Your task to perform on an android device: change notifications settings Image 0: 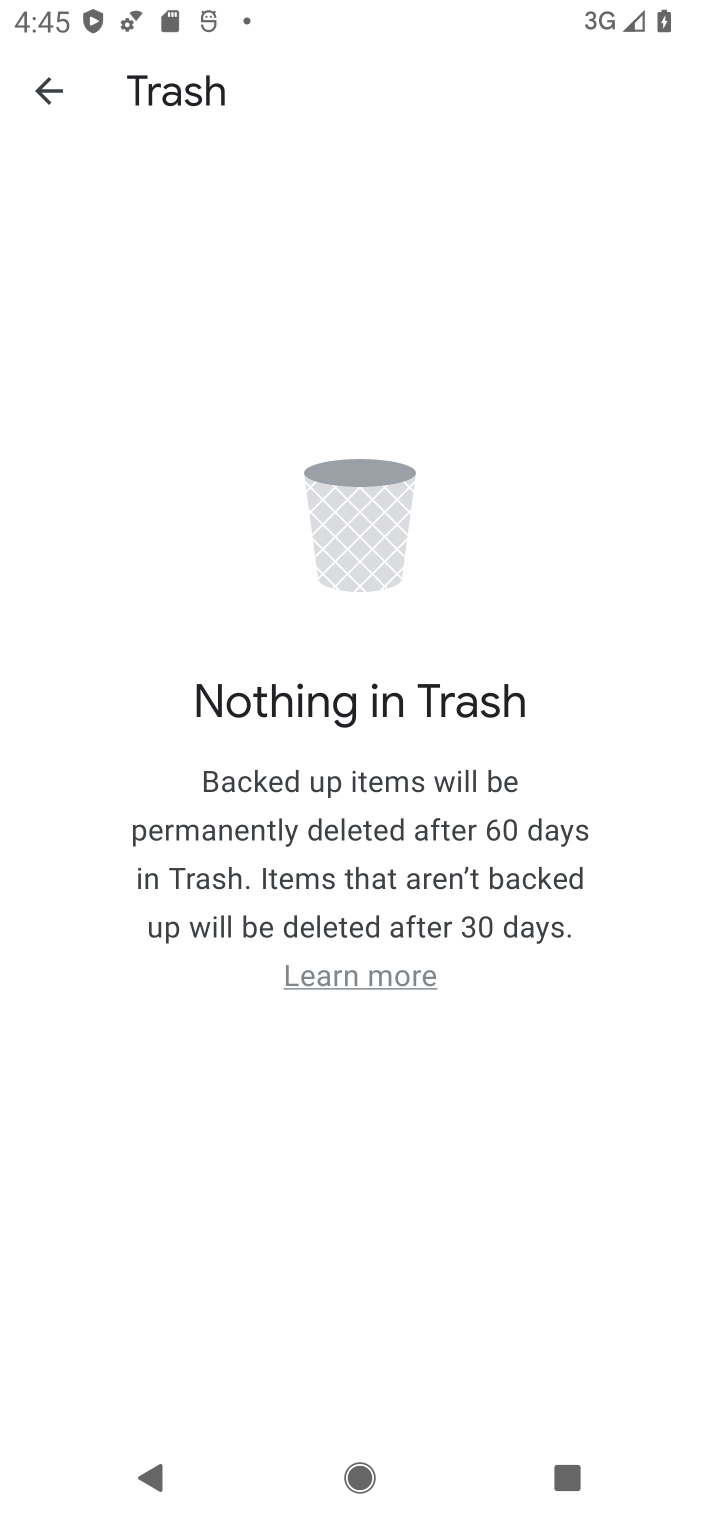
Step 0: press home button
Your task to perform on an android device: change notifications settings Image 1: 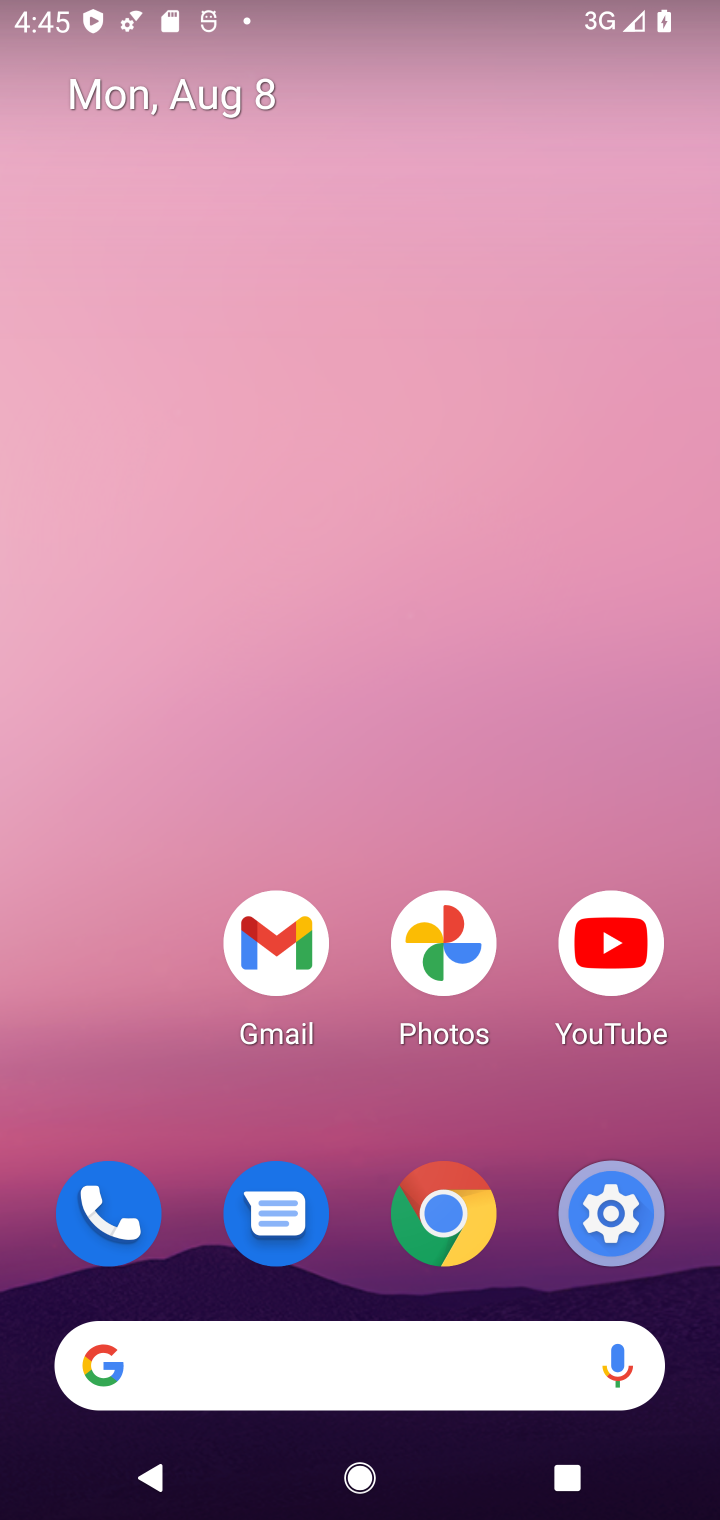
Step 1: click (622, 1202)
Your task to perform on an android device: change notifications settings Image 2: 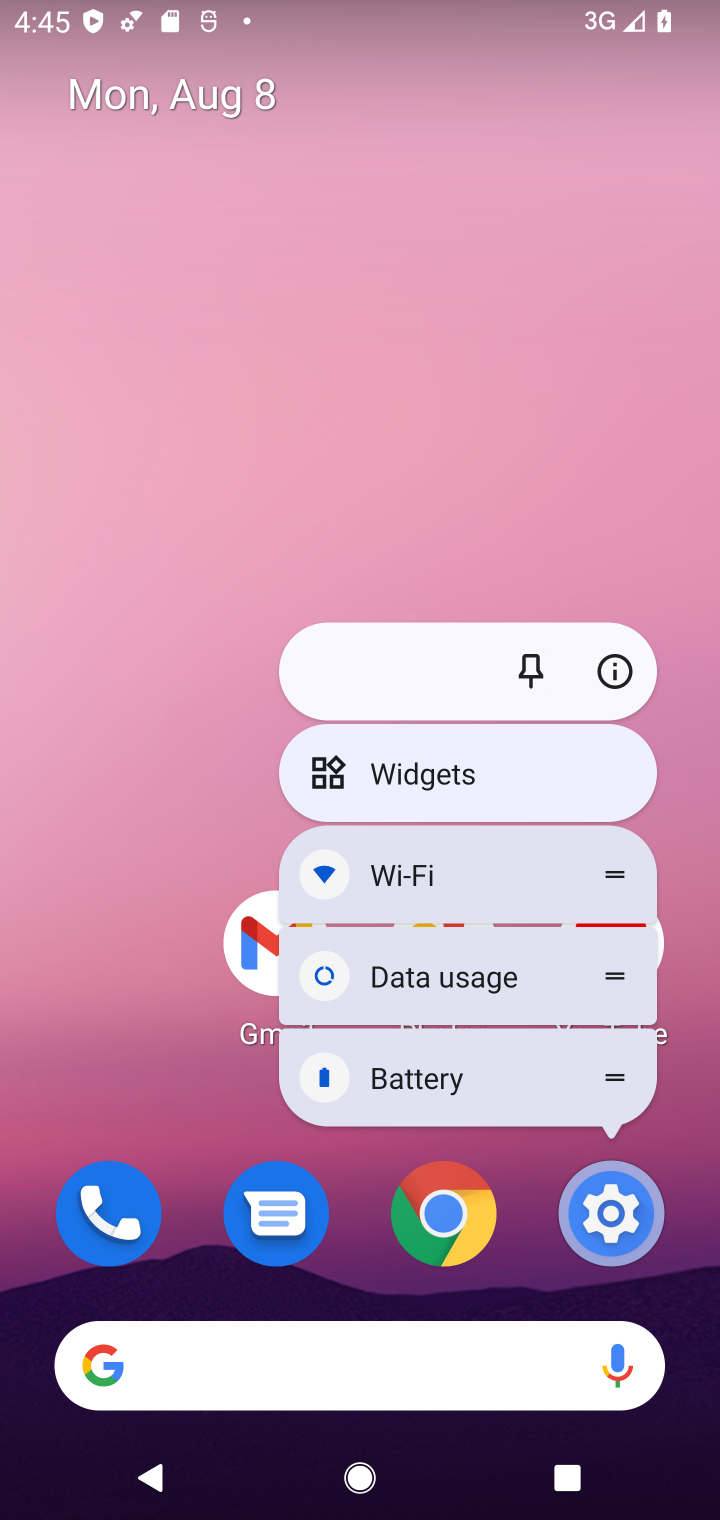
Step 2: click (622, 1202)
Your task to perform on an android device: change notifications settings Image 3: 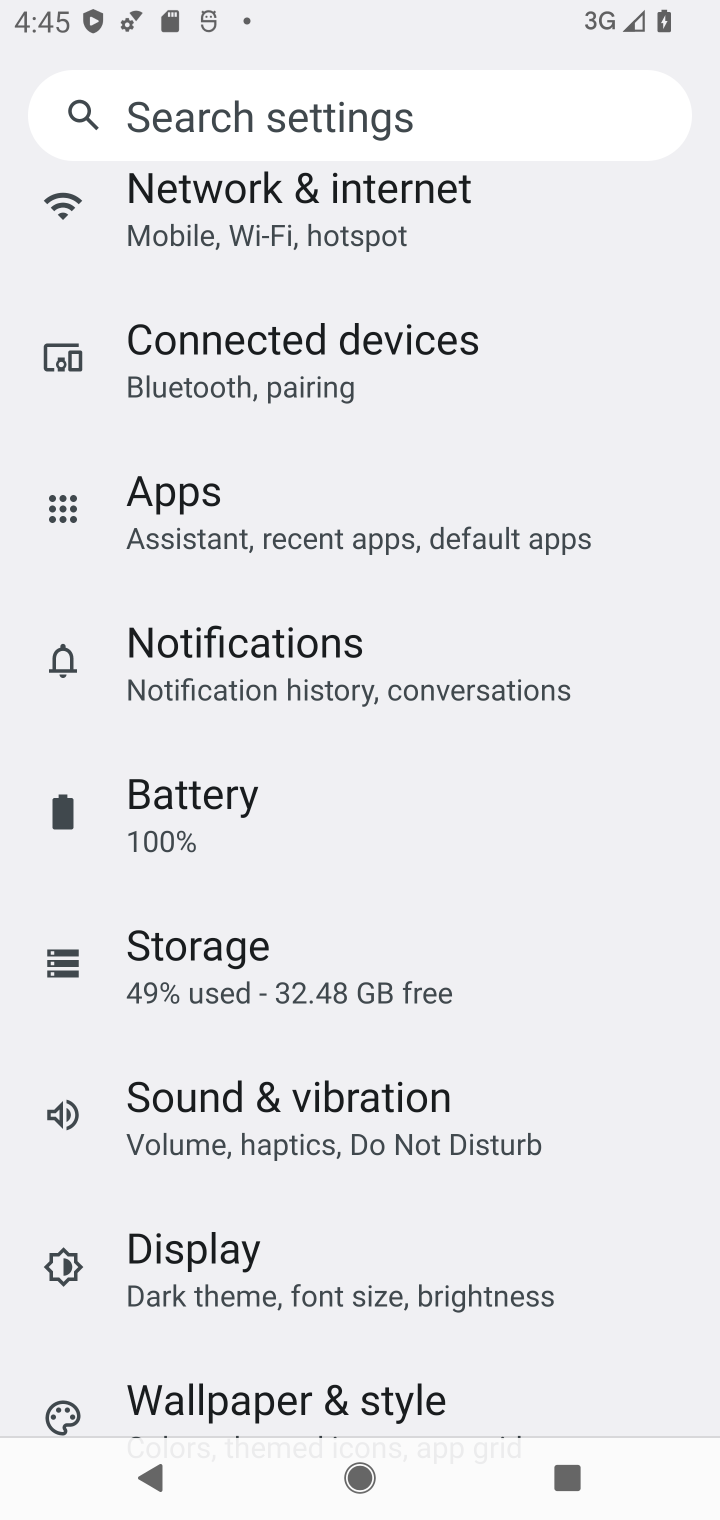
Step 3: click (300, 655)
Your task to perform on an android device: change notifications settings Image 4: 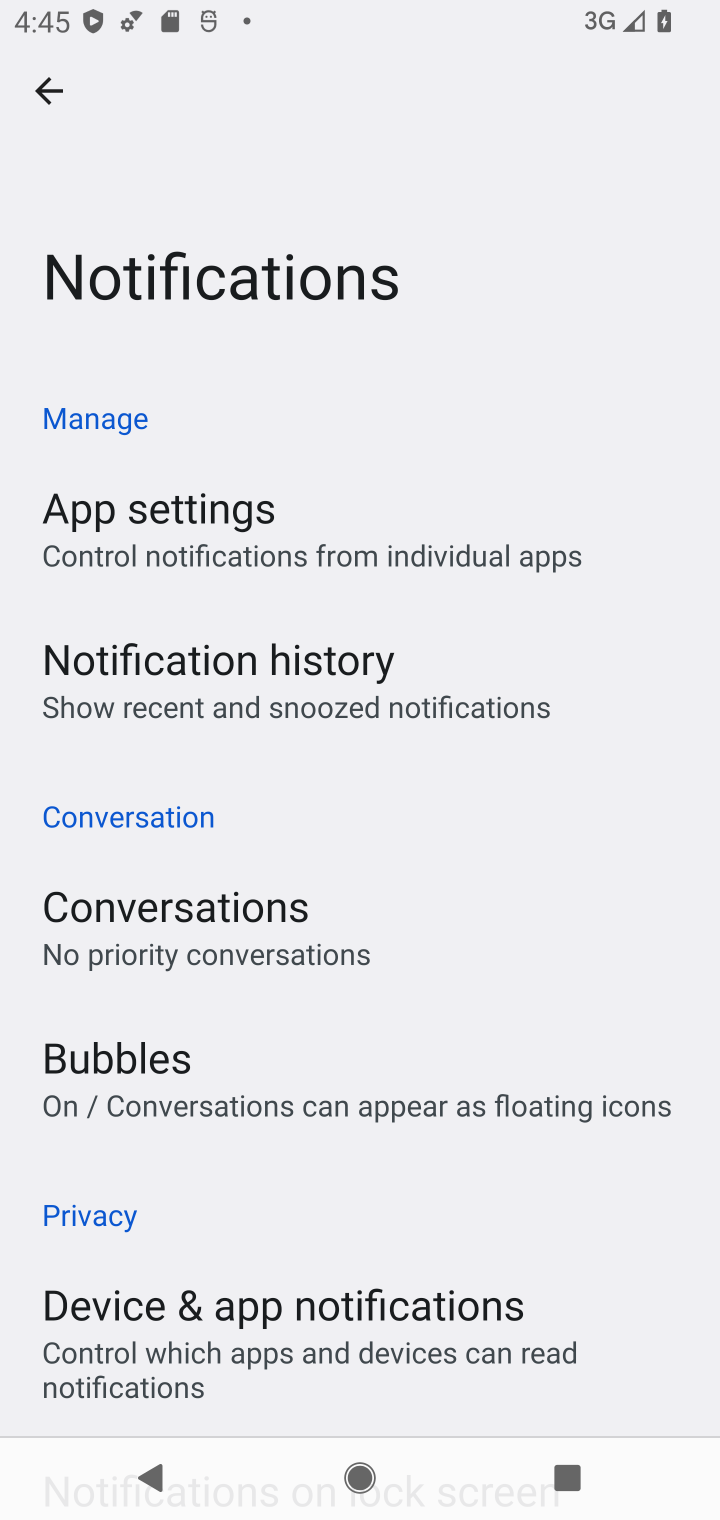
Step 4: click (277, 507)
Your task to perform on an android device: change notifications settings Image 5: 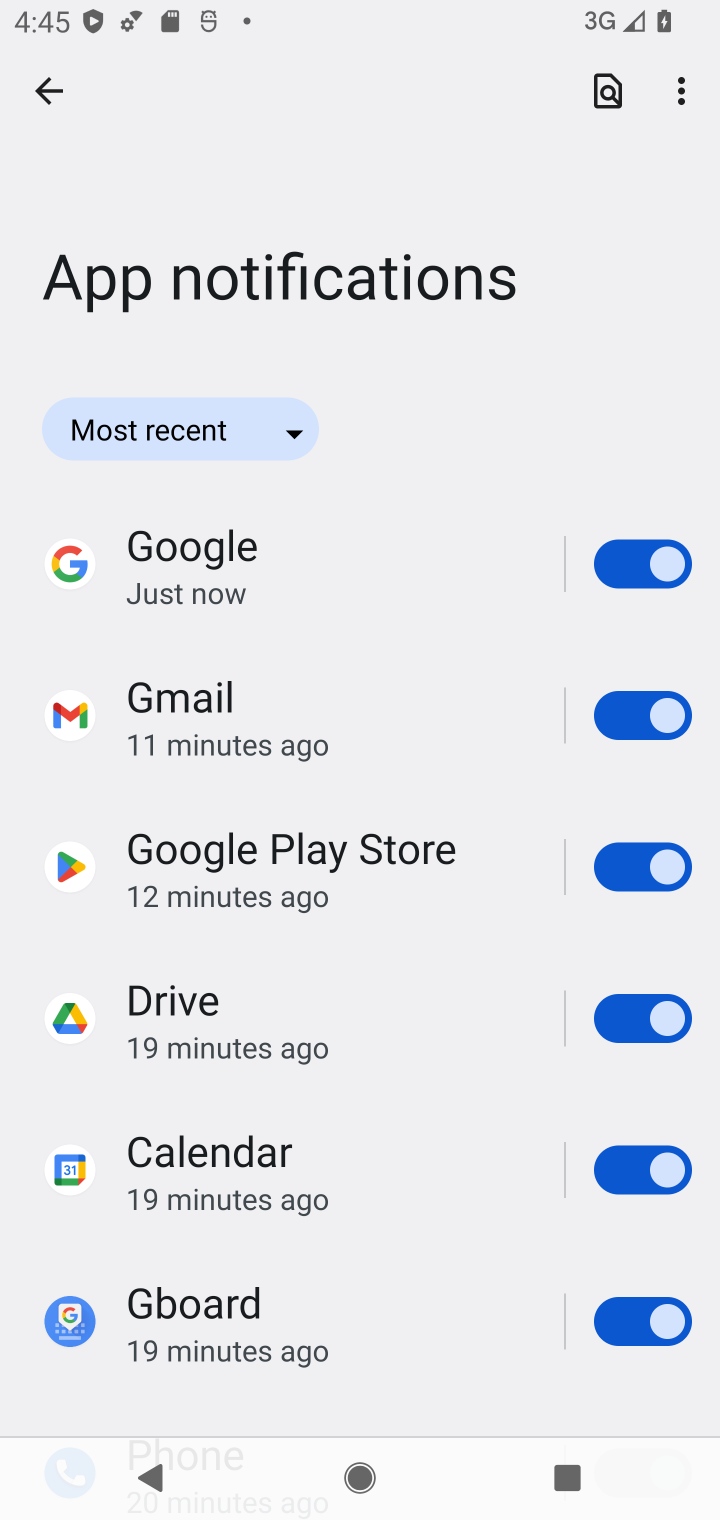
Step 5: click (624, 555)
Your task to perform on an android device: change notifications settings Image 6: 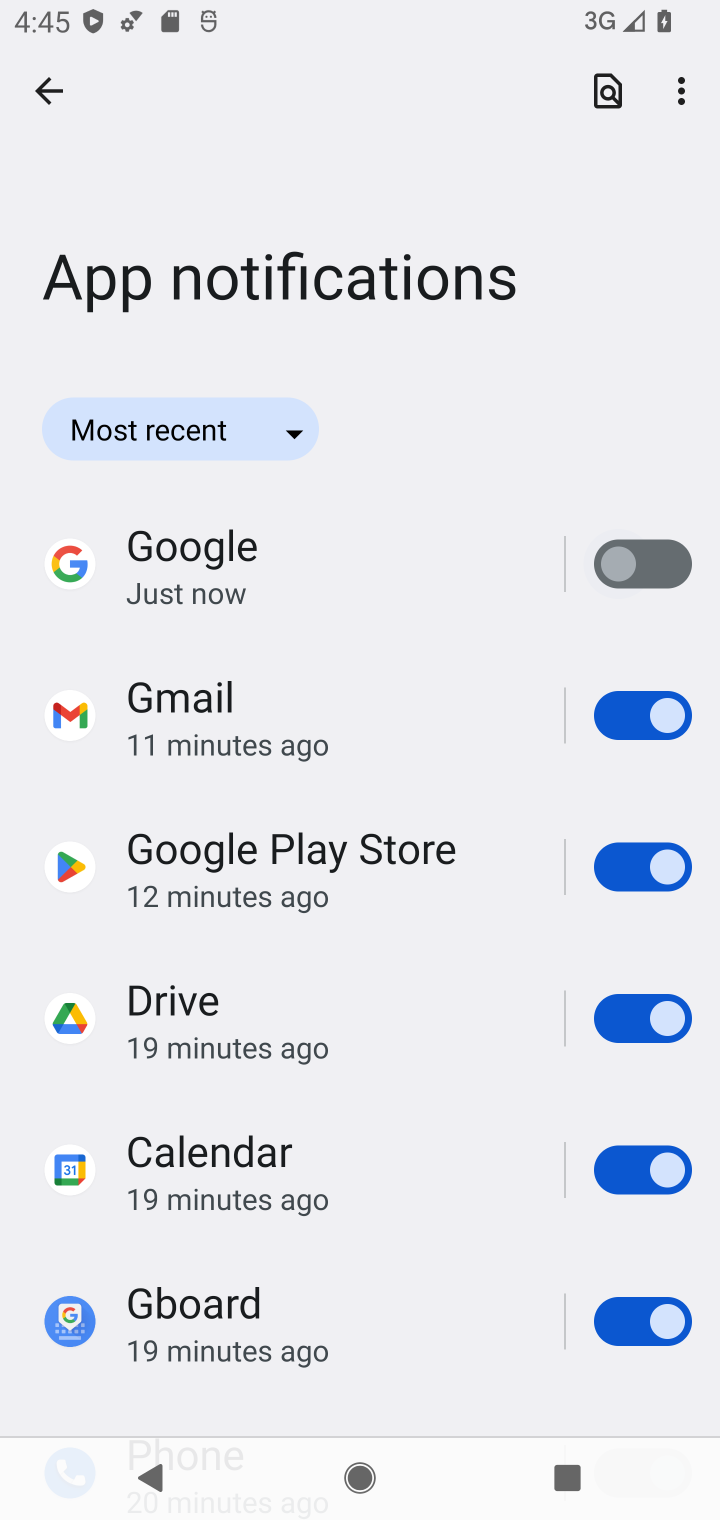
Step 6: click (624, 731)
Your task to perform on an android device: change notifications settings Image 7: 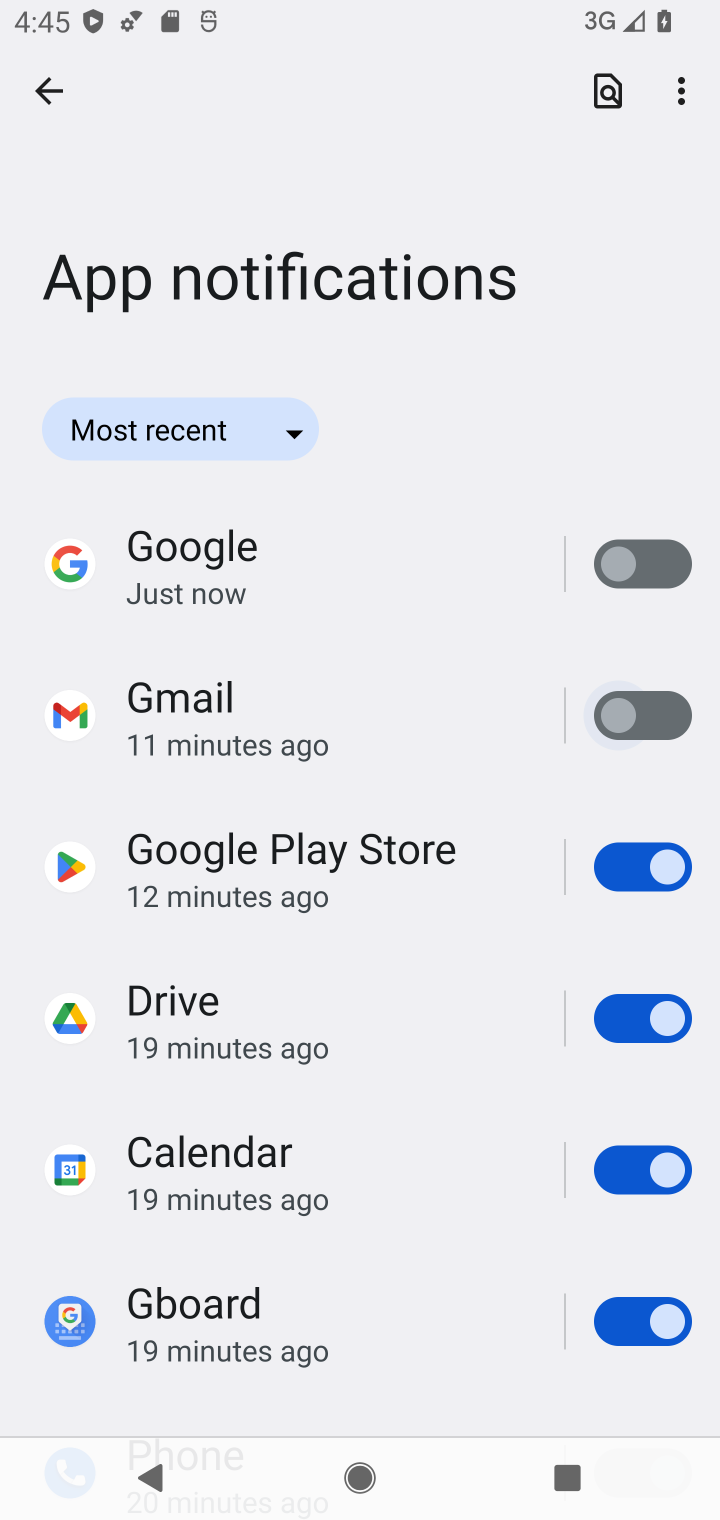
Step 7: click (626, 845)
Your task to perform on an android device: change notifications settings Image 8: 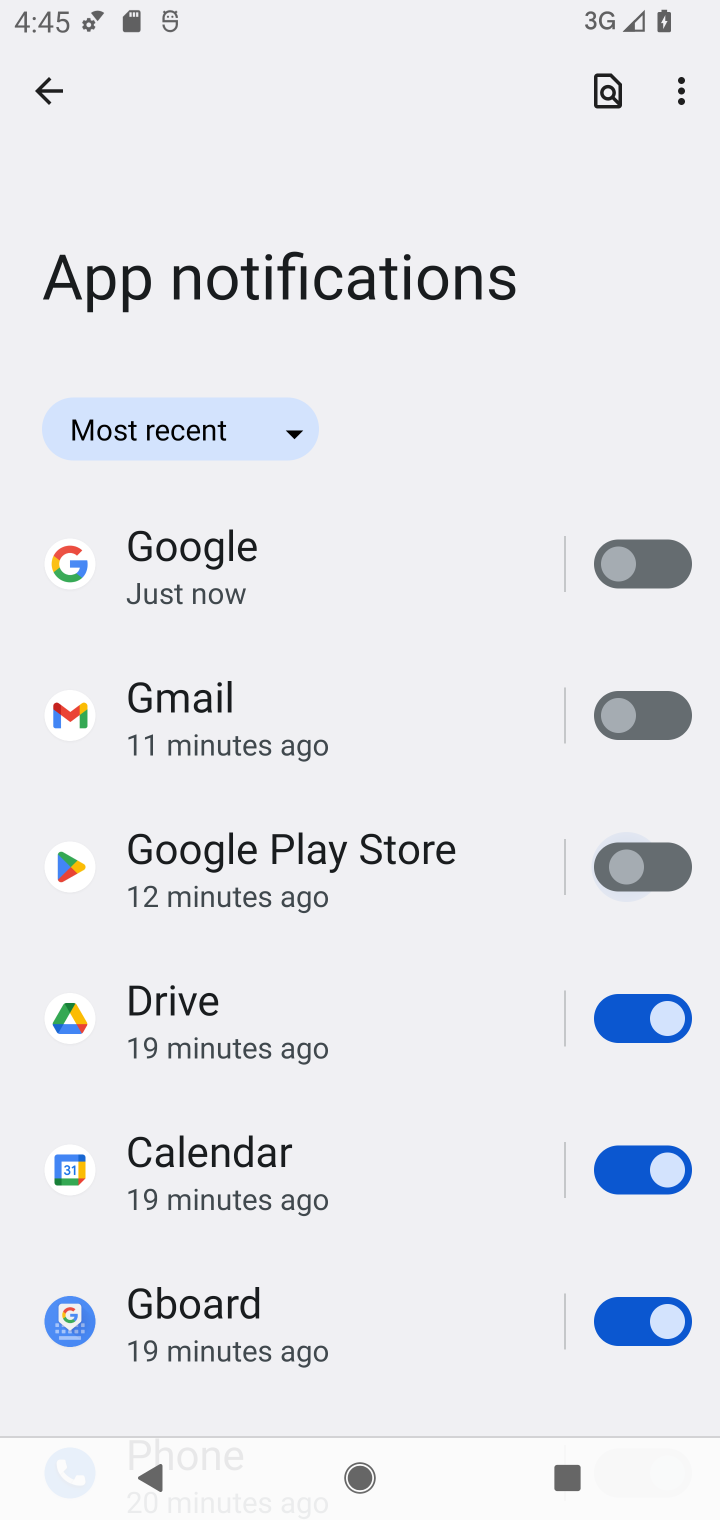
Step 8: click (633, 997)
Your task to perform on an android device: change notifications settings Image 9: 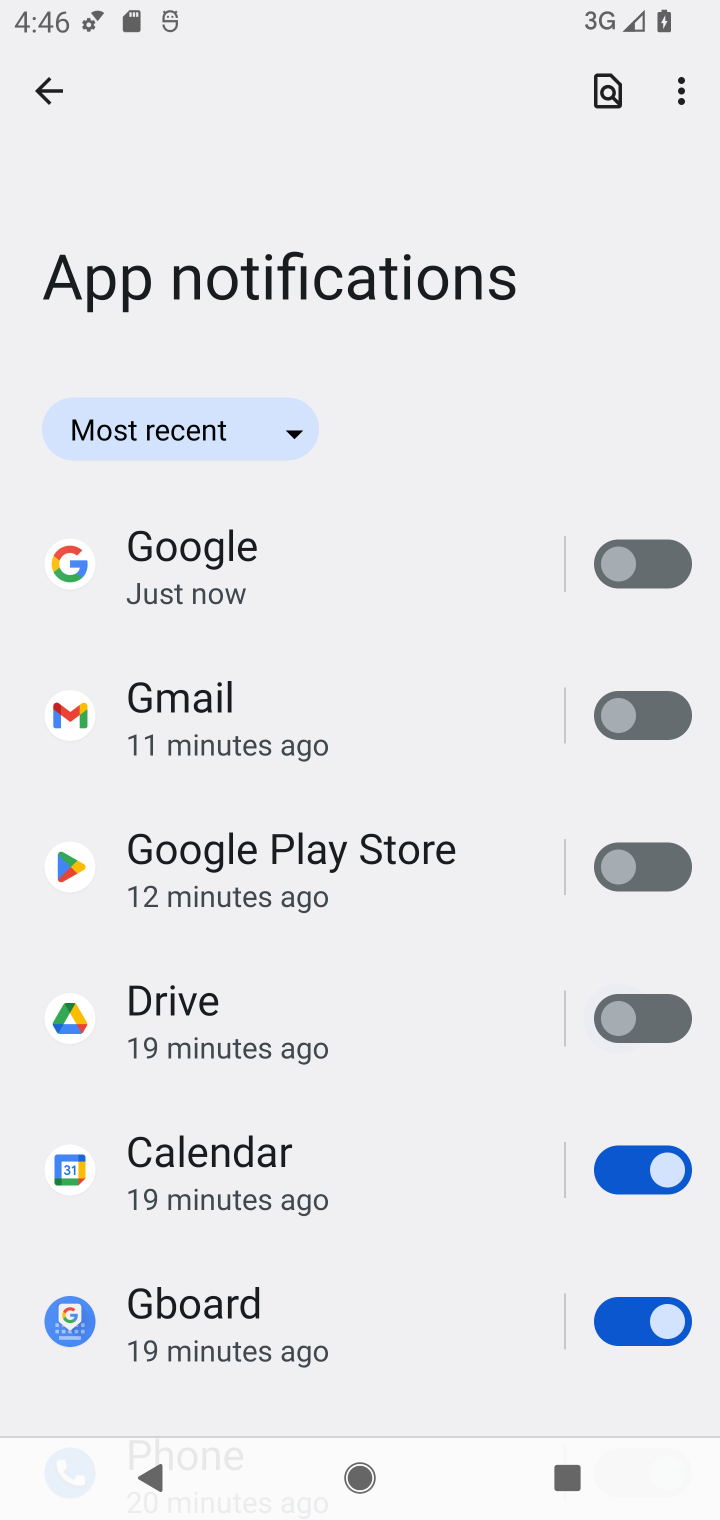
Step 9: click (647, 1164)
Your task to perform on an android device: change notifications settings Image 10: 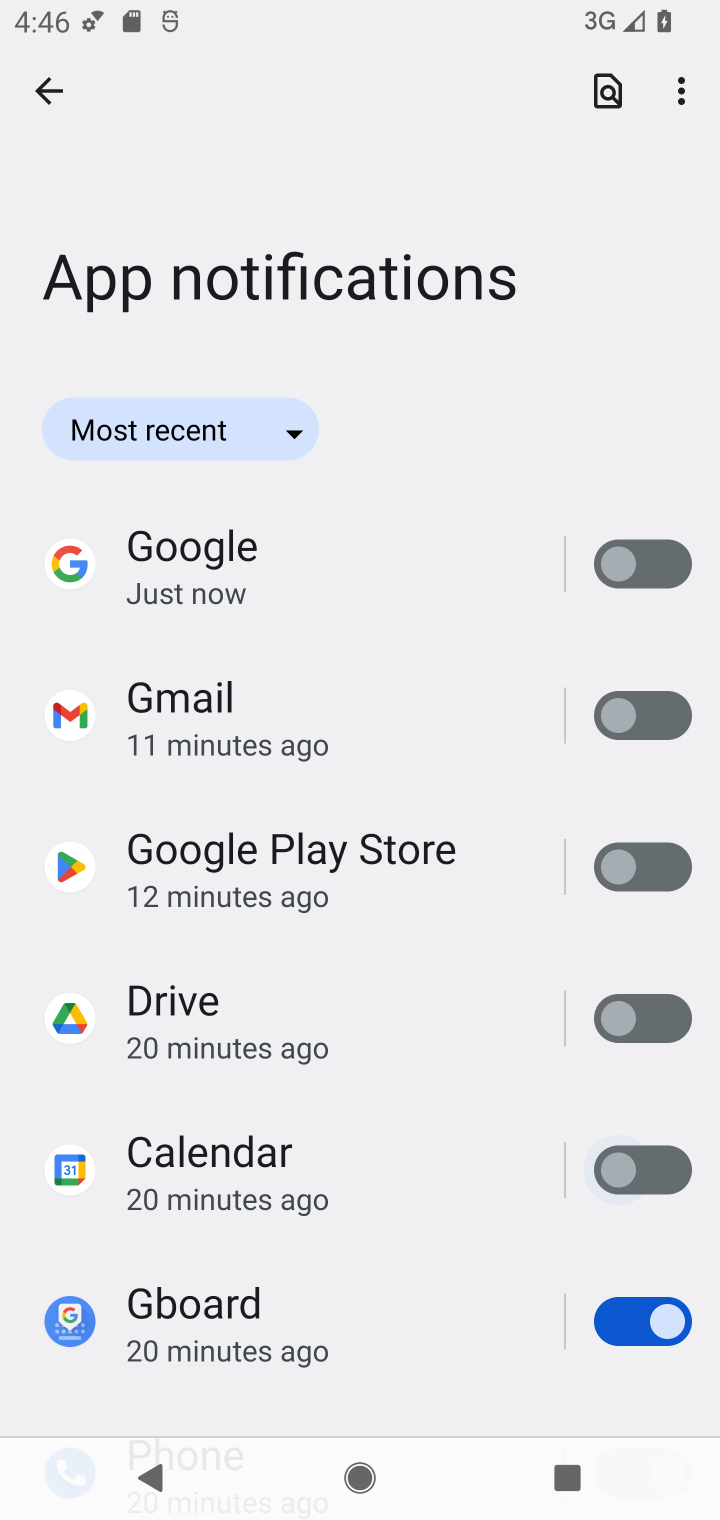
Step 10: click (647, 1323)
Your task to perform on an android device: change notifications settings Image 11: 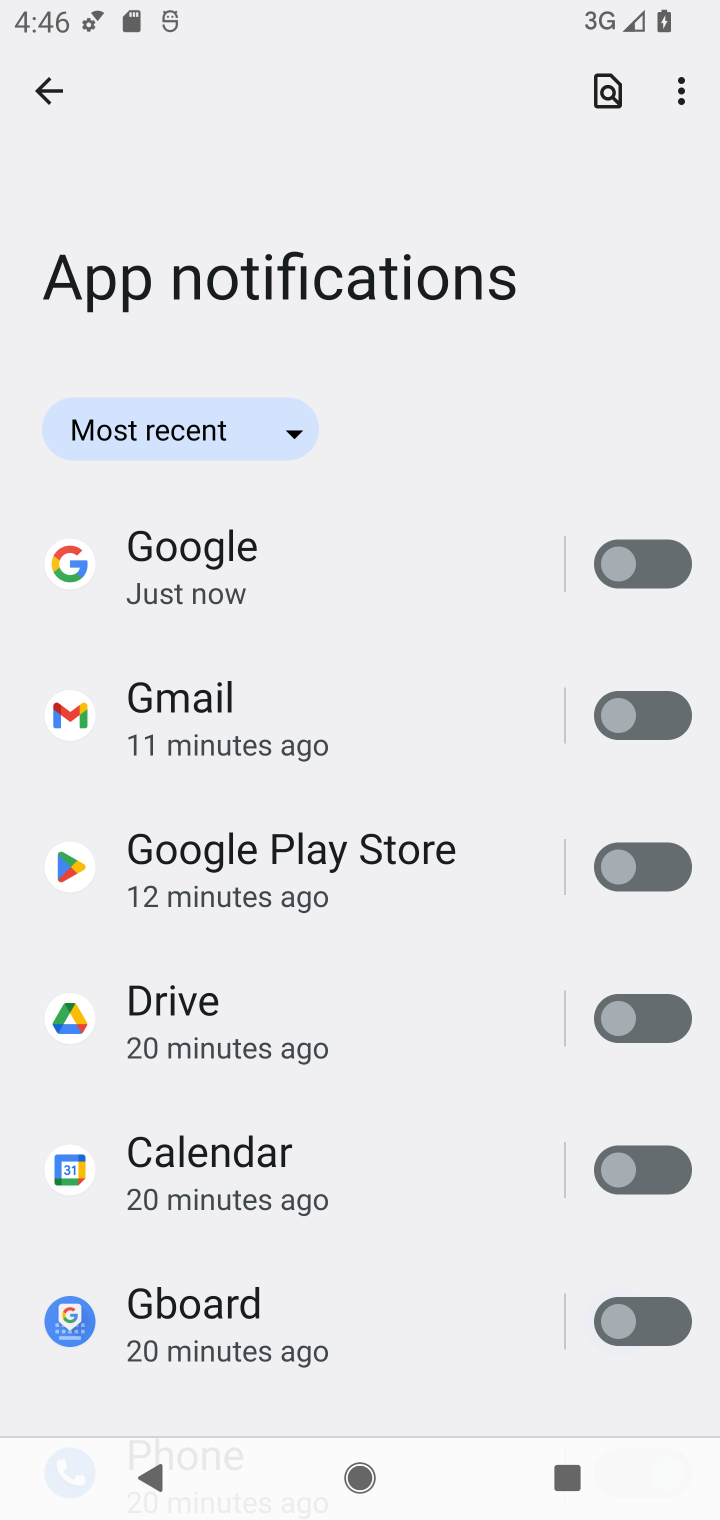
Step 11: drag from (405, 1187) to (369, 273)
Your task to perform on an android device: change notifications settings Image 12: 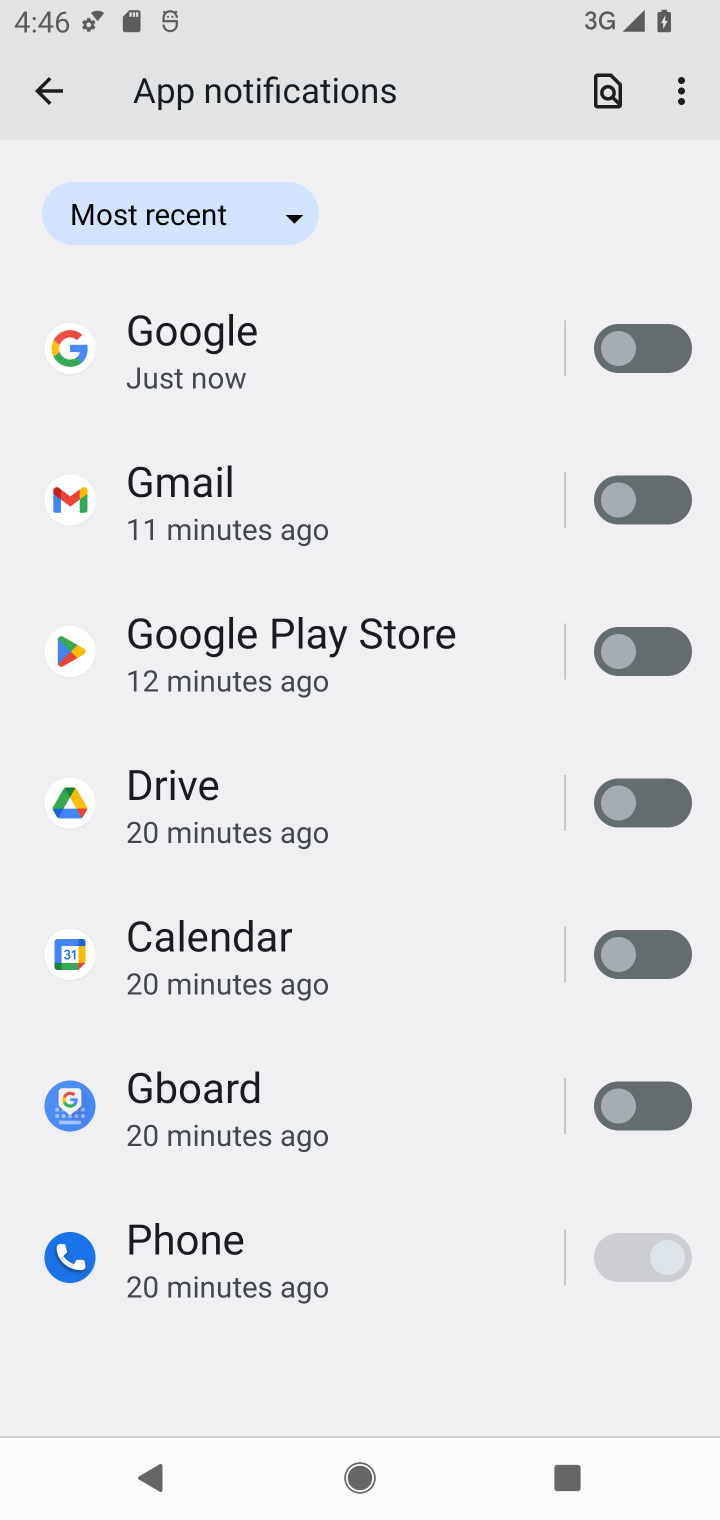
Step 12: click (53, 112)
Your task to perform on an android device: change notifications settings Image 13: 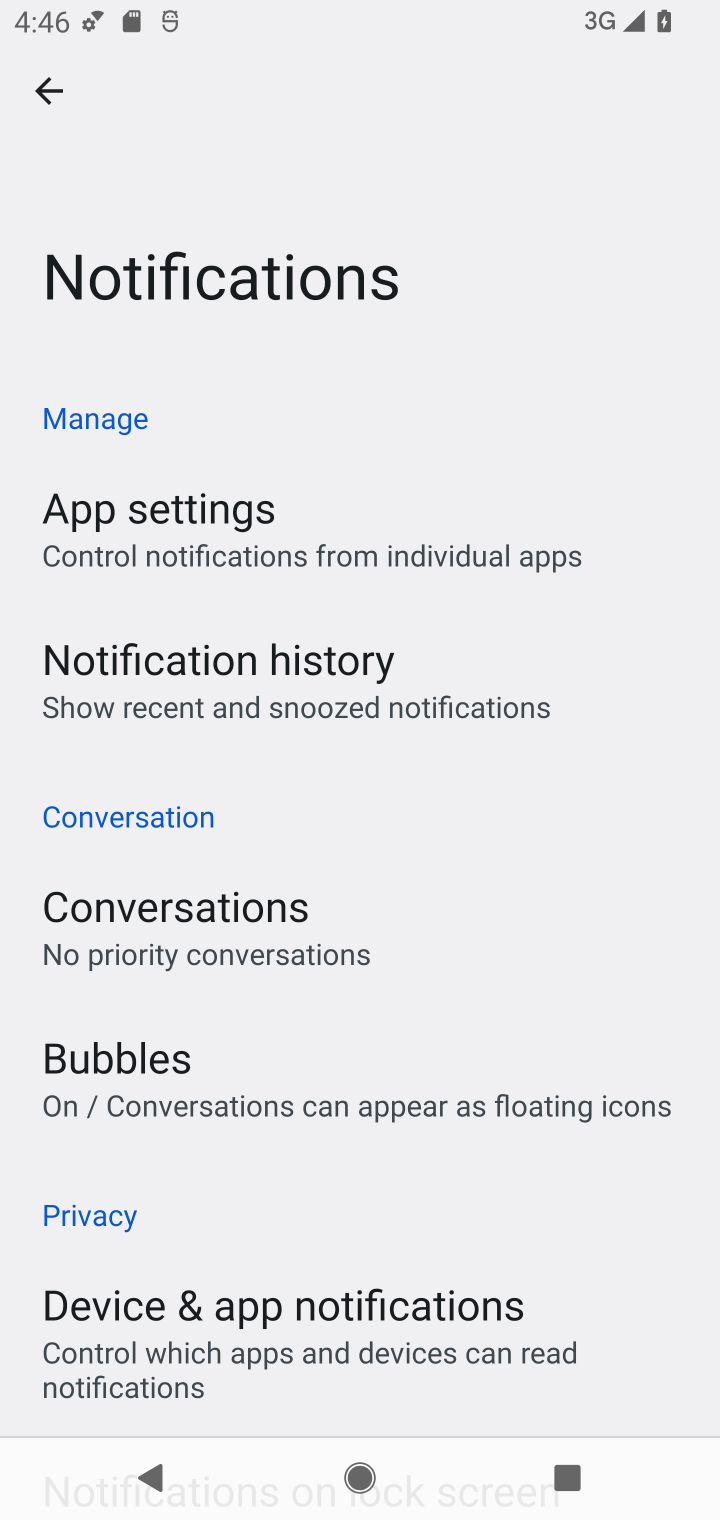
Step 13: drag from (284, 1290) to (283, 575)
Your task to perform on an android device: change notifications settings Image 14: 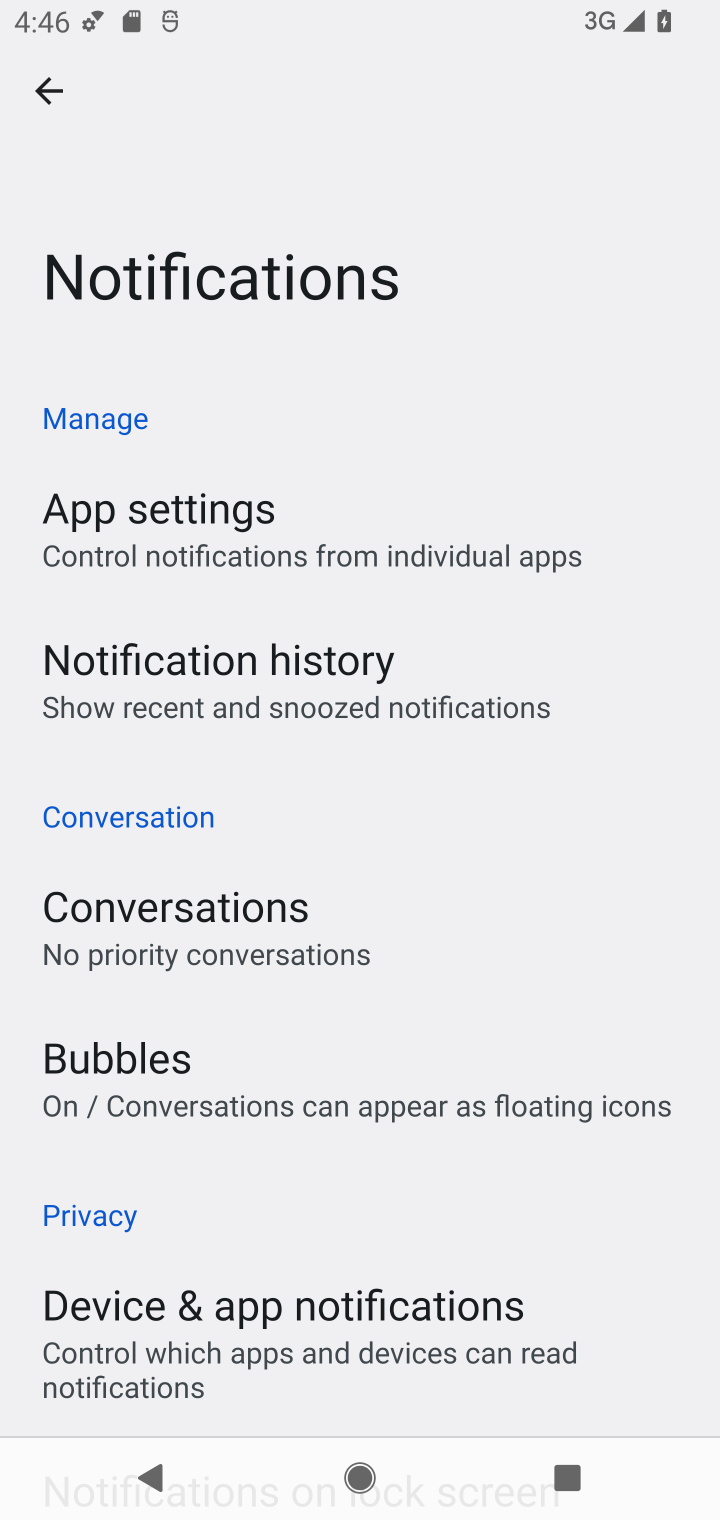
Step 14: click (329, 653)
Your task to perform on an android device: change notifications settings Image 15: 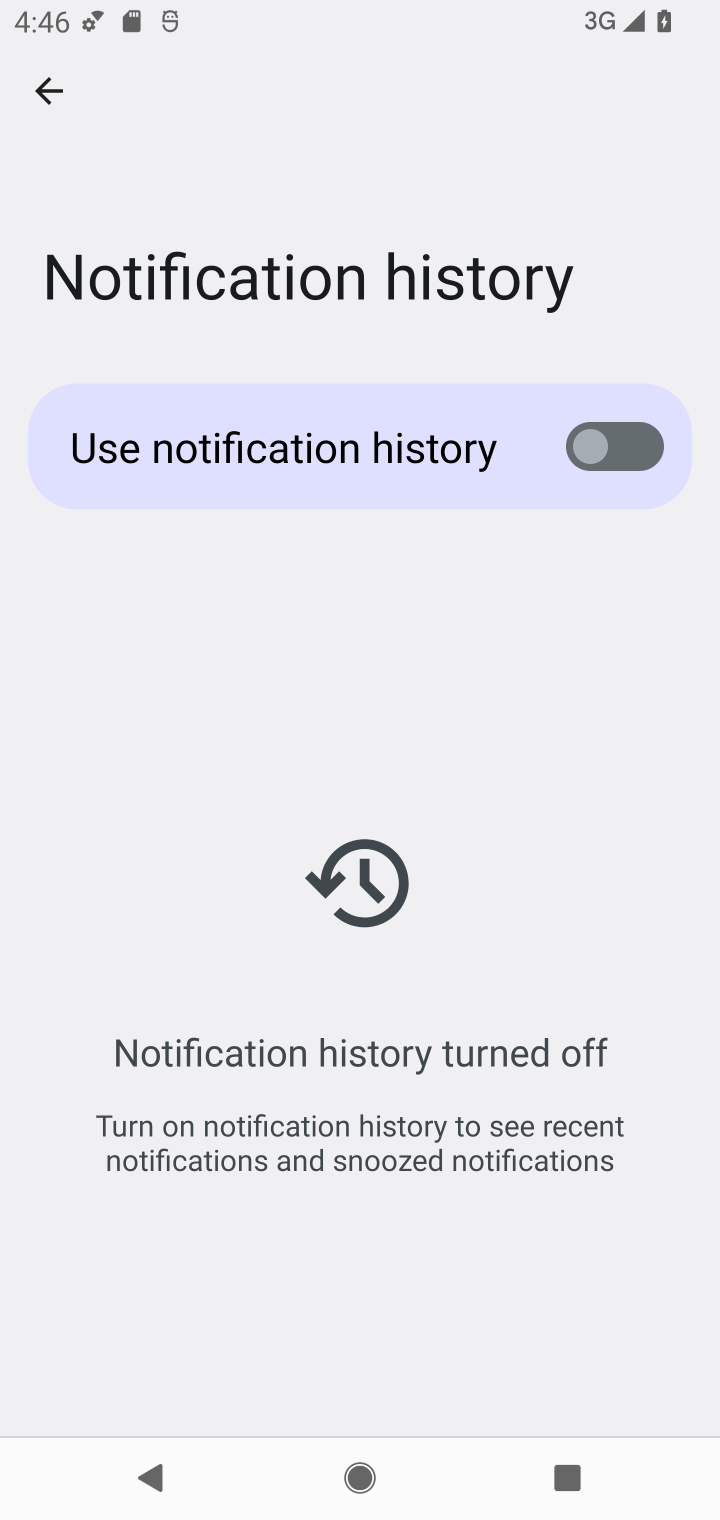
Step 15: click (616, 451)
Your task to perform on an android device: change notifications settings Image 16: 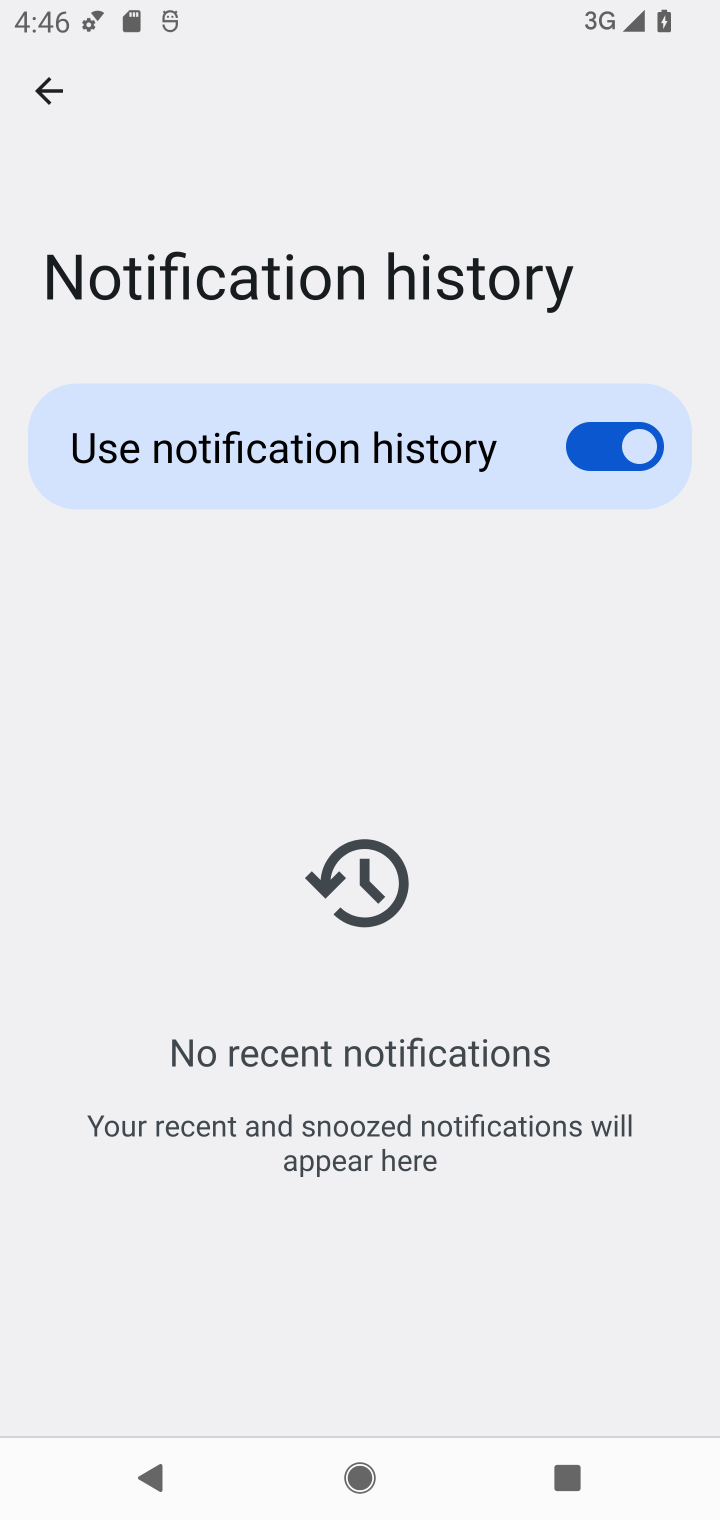
Step 16: click (48, 89)
Your task to perform on an android device: change notifications settings Image 17: 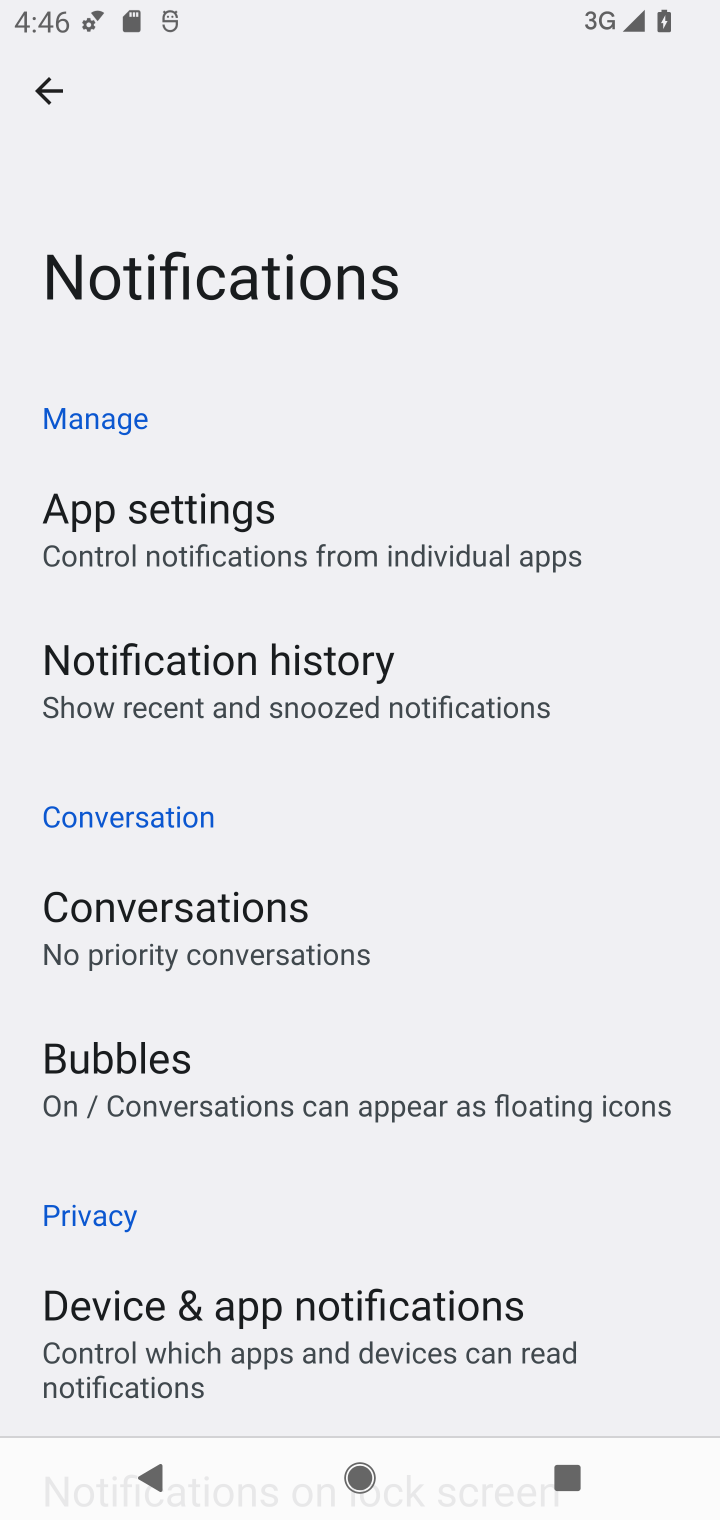
Step 17: drag from (371, 1082) to (347, 257)
Your task to perform on an android device: change notifications settings Image 18: 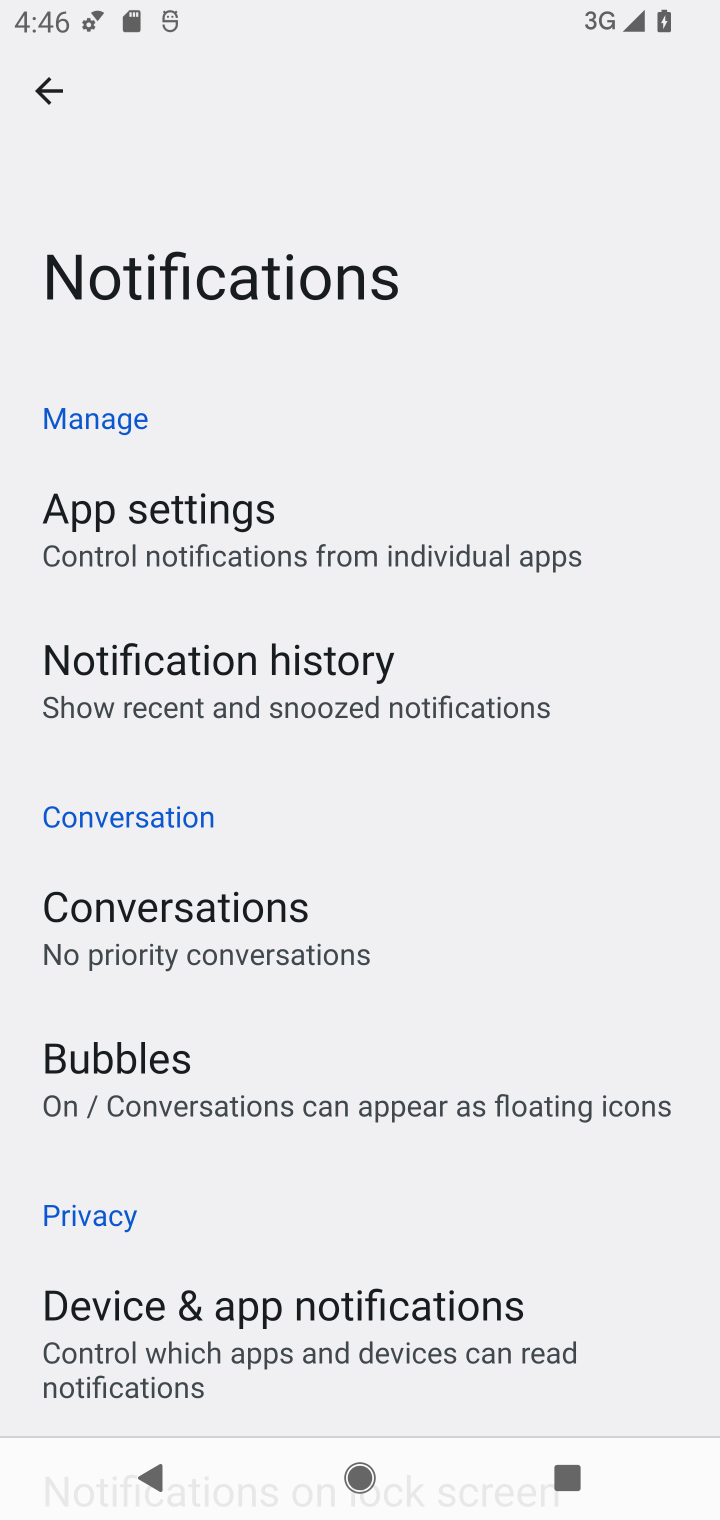
Step 18: drag from (436, 1323) to (436, 797)
Your task to perform on an android device: change notifications settings Image 19: 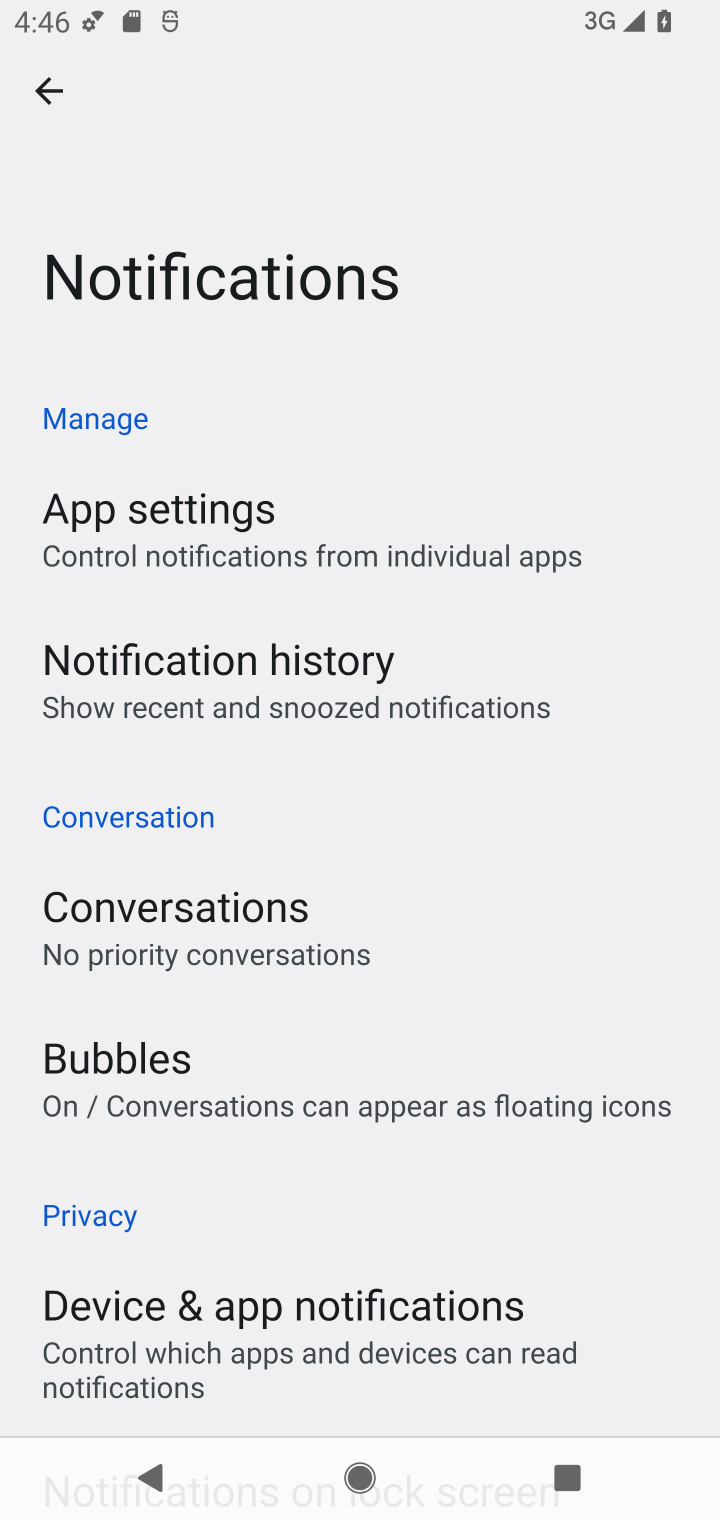
Step 19: drag from (447, 1026) to (444, 88)
Your task to perform on an android device: change notifications settings Image 20: 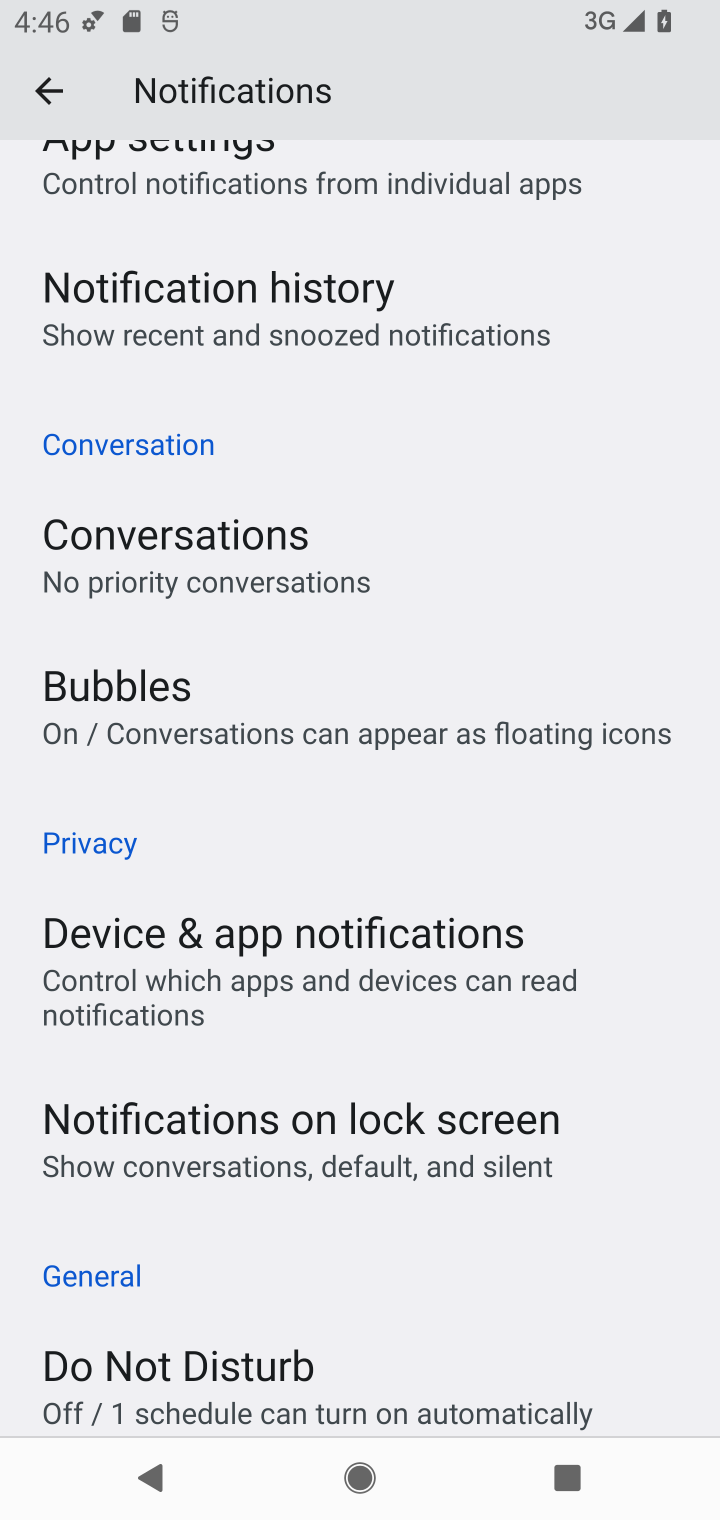
Step 20: click (370, 1121)
Your task to perform on an android device: change notifications settings Image 21: 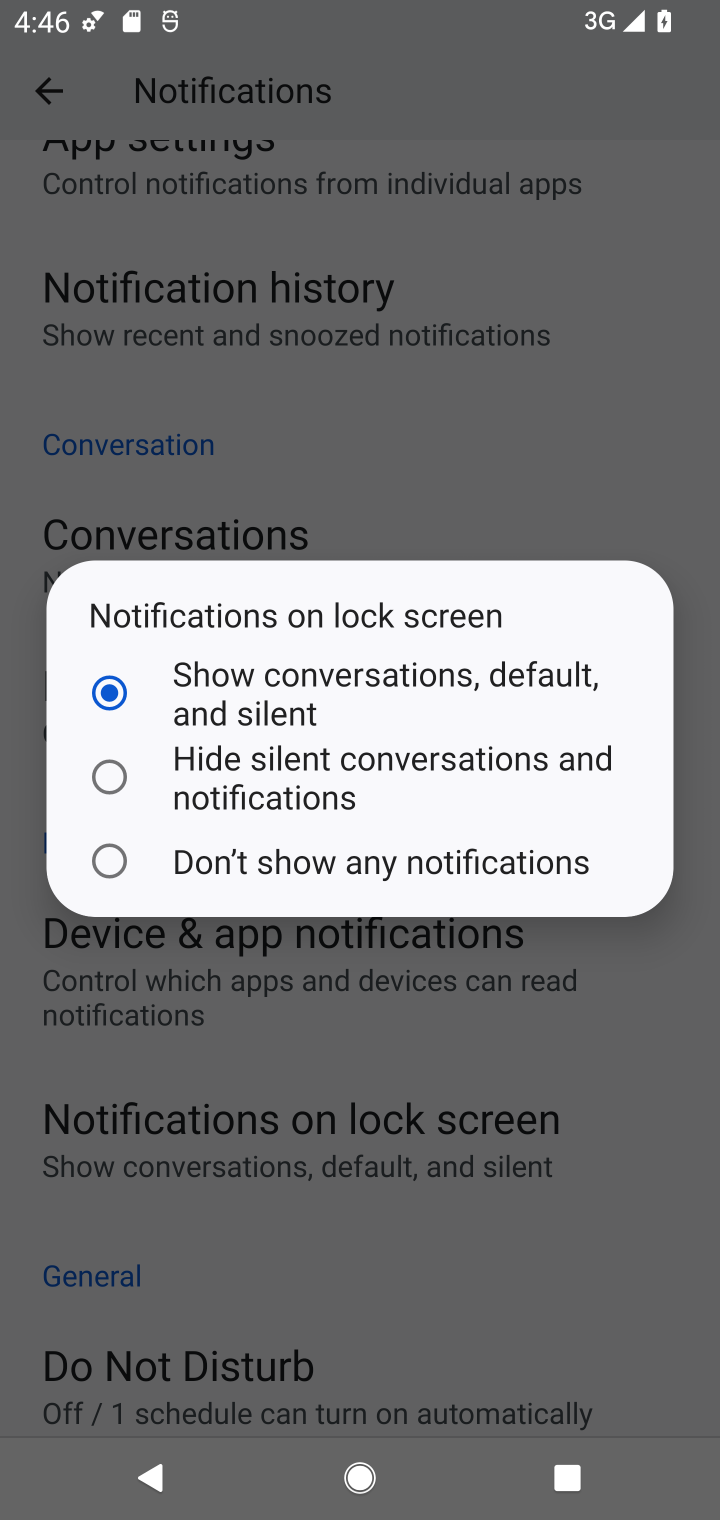
Step 21: click (435, 784)
Your task to perform on an android device: change notifications settings Image 22: 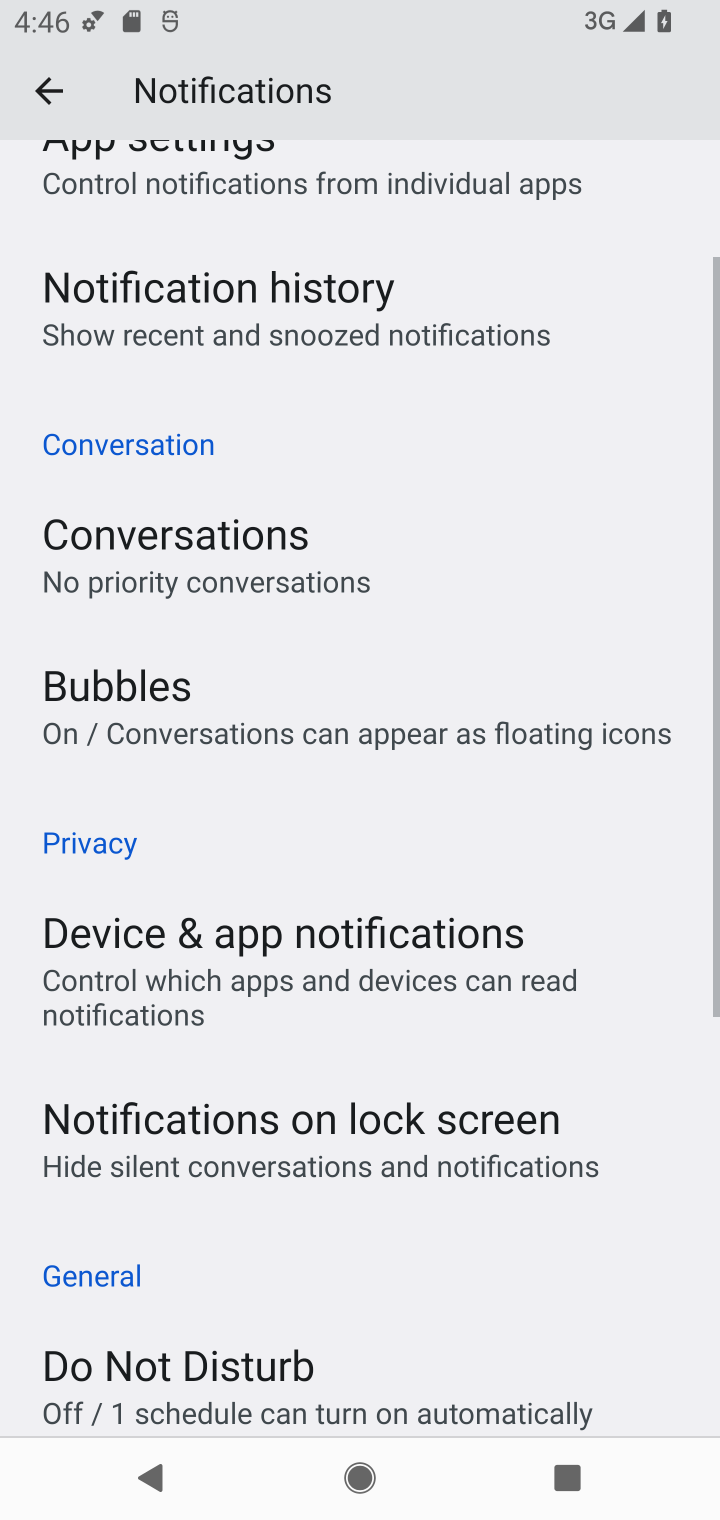
Step 22: drag from (393, 1178) to (353, 485)
Your task to perform on an android device: change notifications settings Image 23: 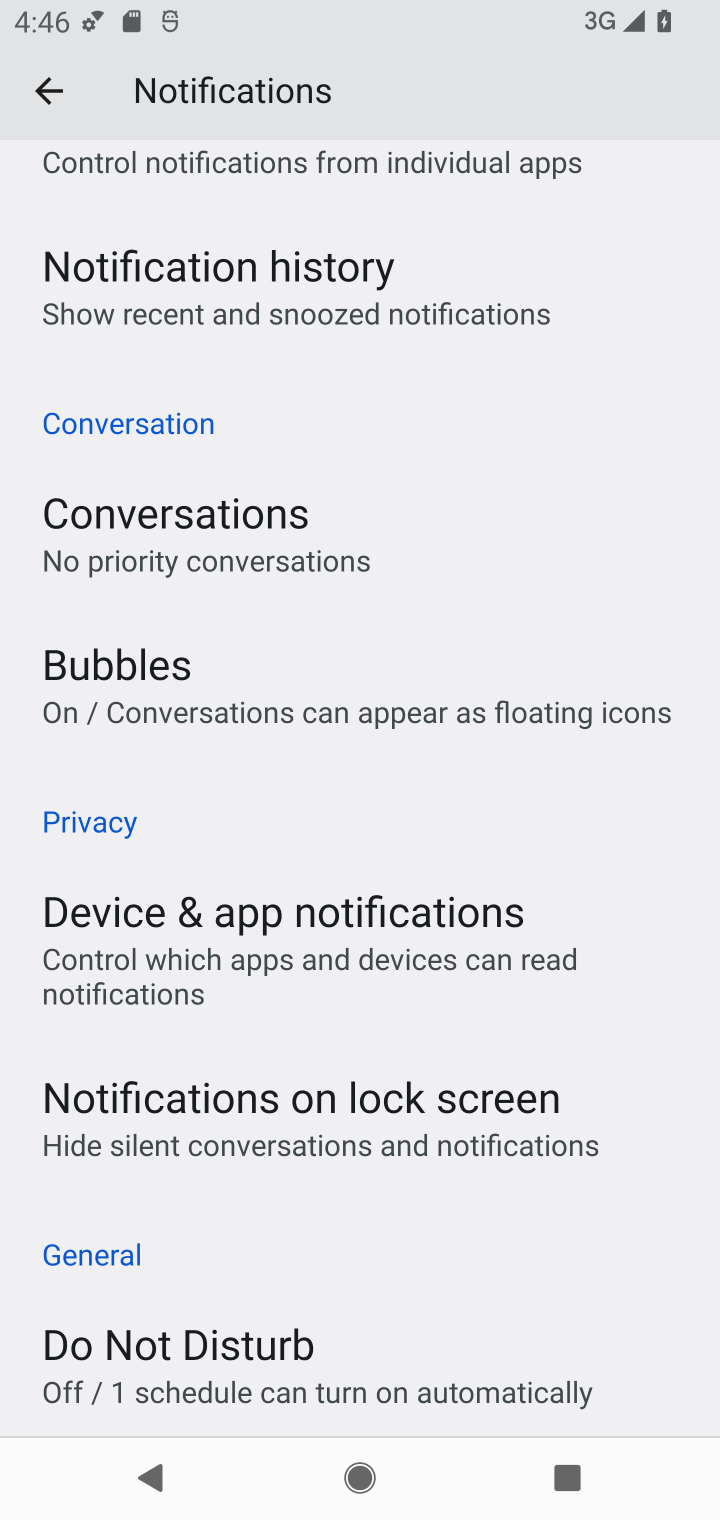
Step 23: drag from (364, 1252) to (339, 594)
Your task to perform on an android device: change notifications settings Image 24: 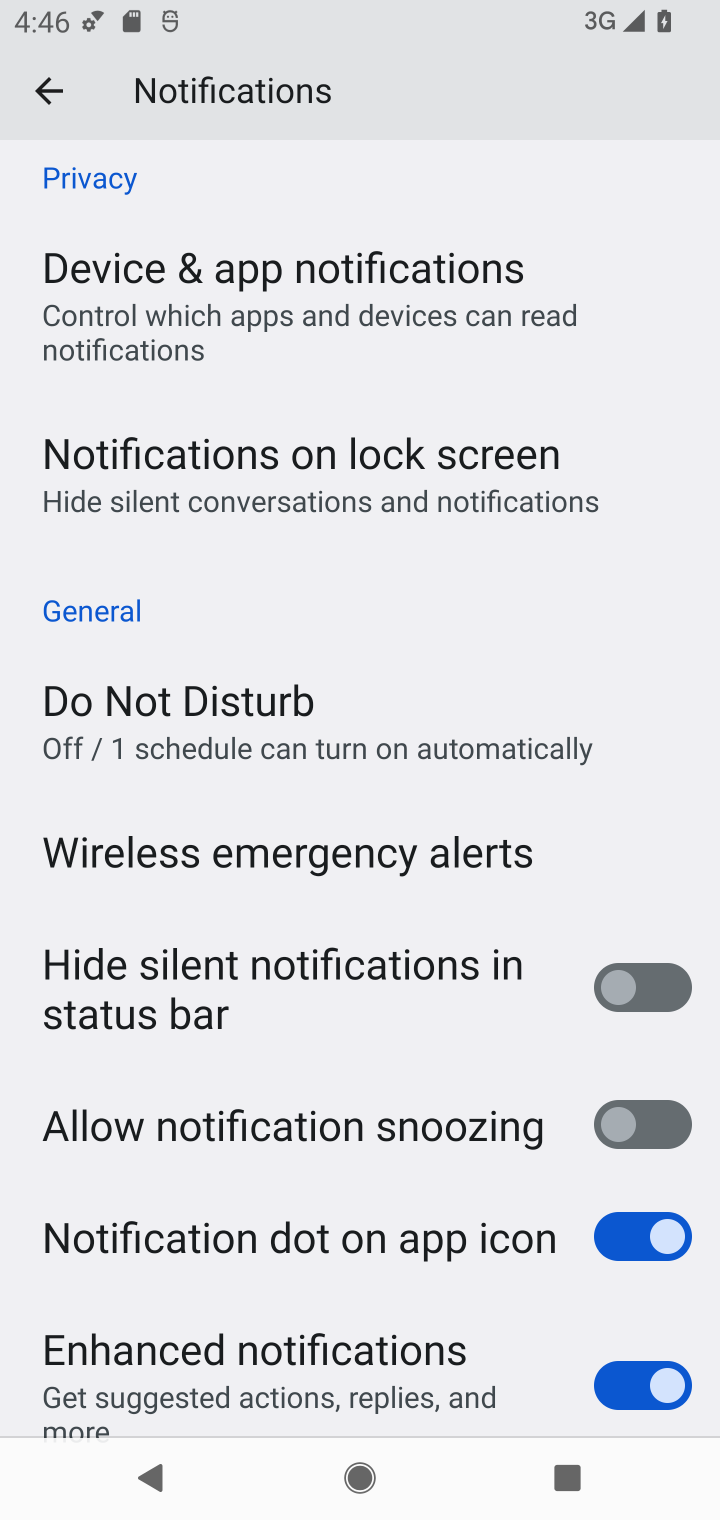
Step 24: click (626, 974)
Your task to perform on an android device: change notifications settings Image 25: 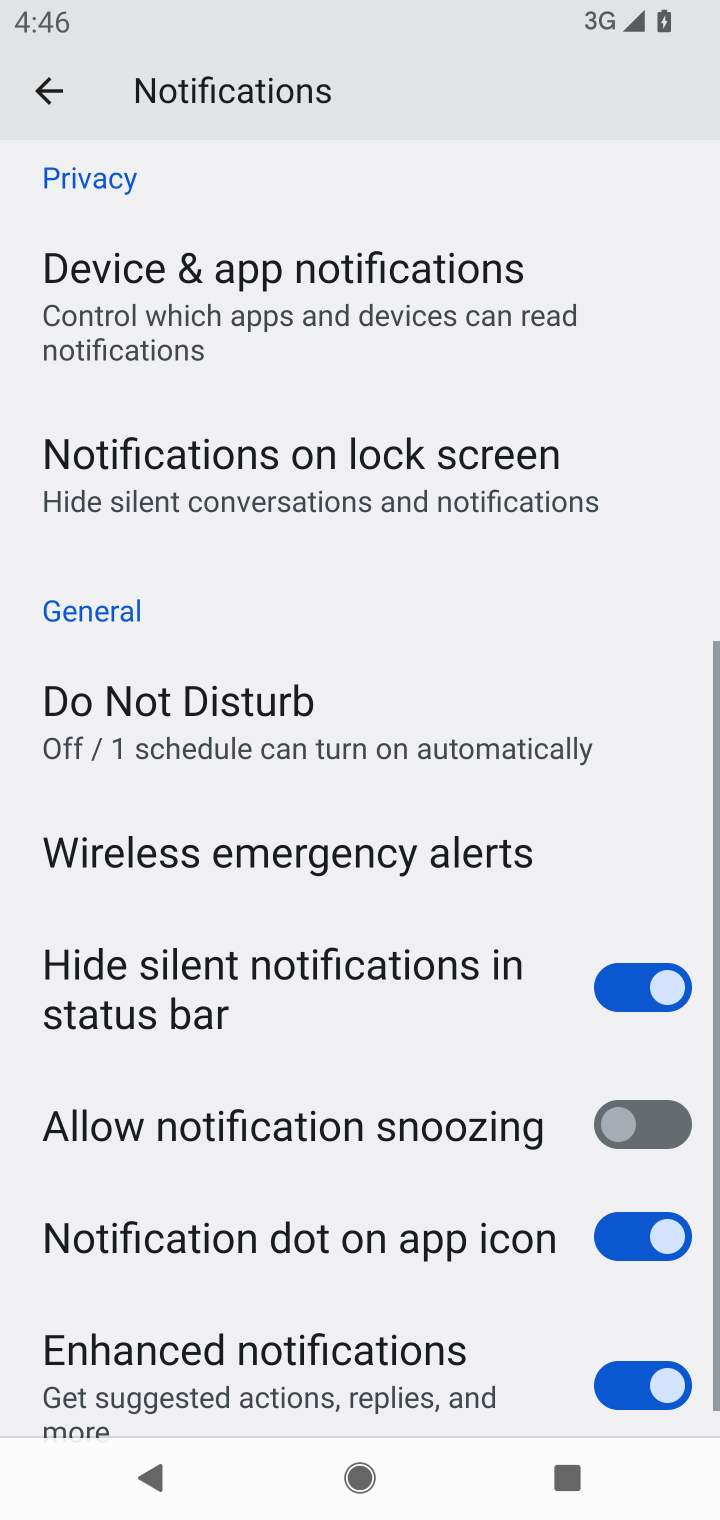
Step 25: click (654, 1138)
Your task to perform on an android device: change notifications settings Image 26: 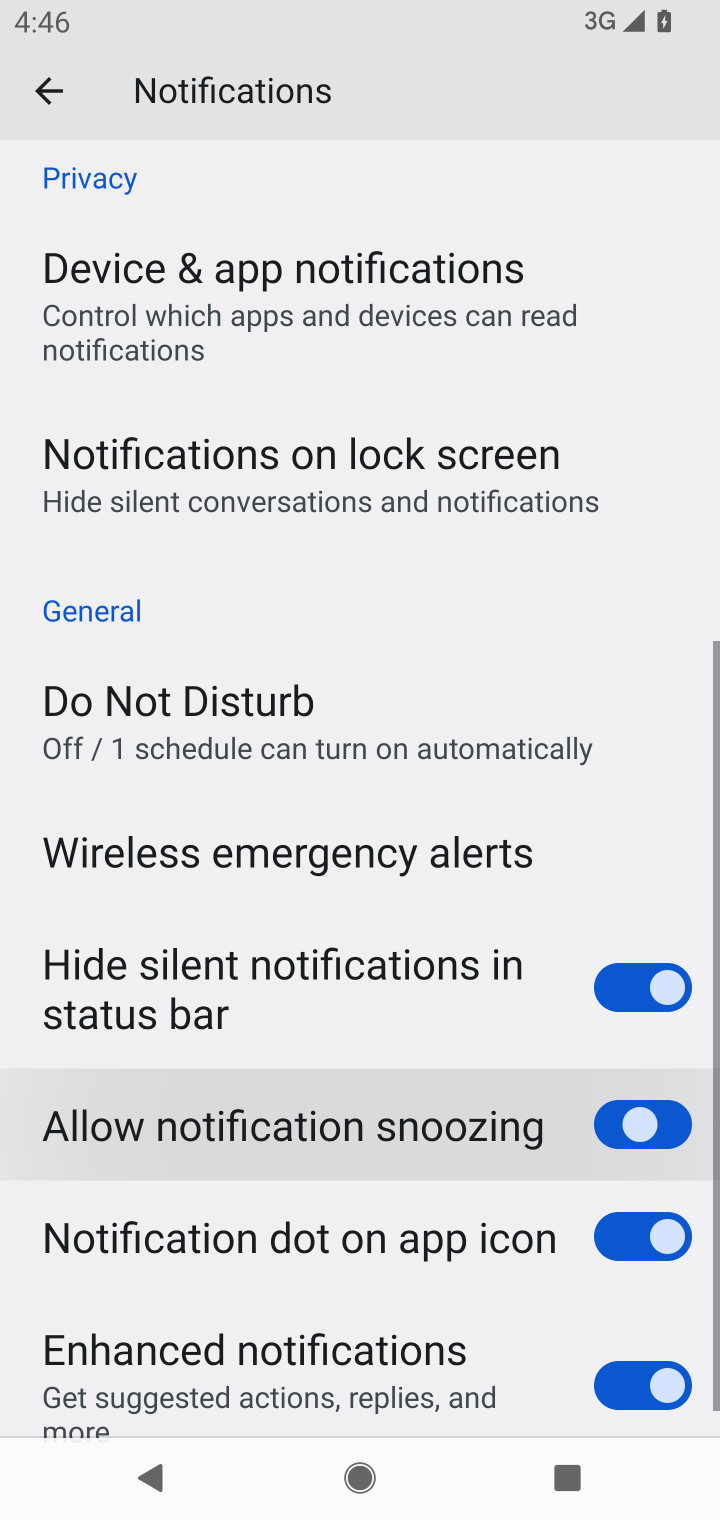
Step 26: click (664, 1227)
Your task to perform on an android device: change notifications settings Image 27: 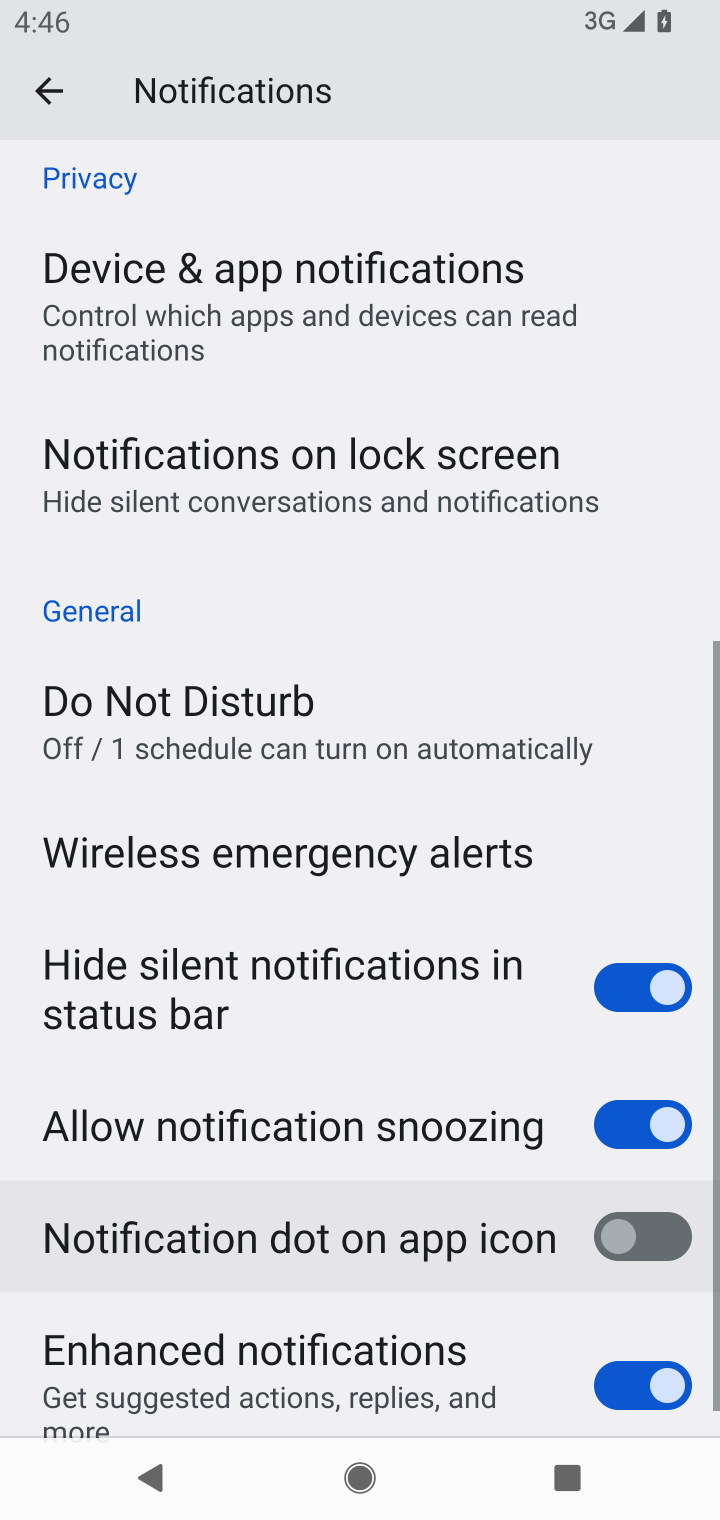
Step 27: click (656, 1366)
Your task to perform on an android device: change notifications settings Image 28: 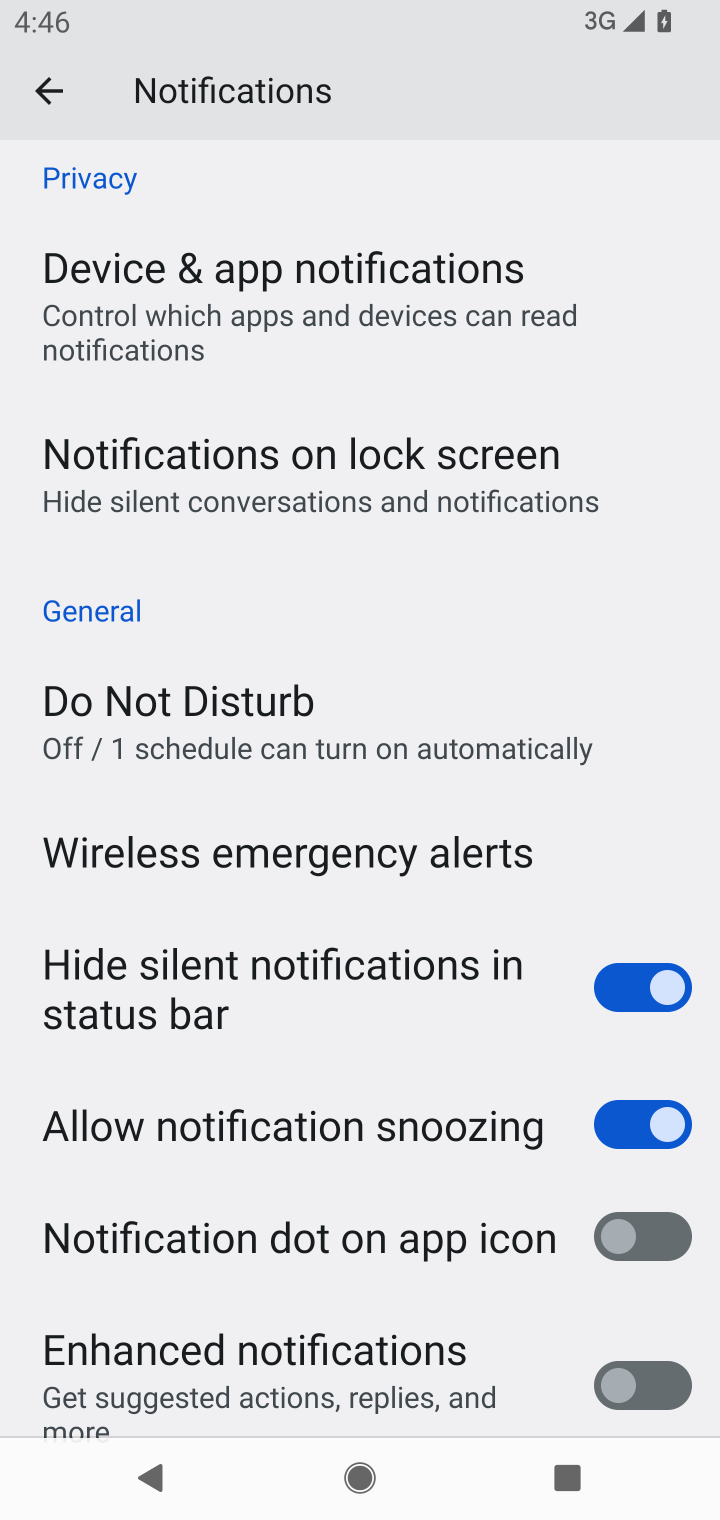
Step 28: task complete